Your task to perform on an android device: Toggle the flashlight Image 0: 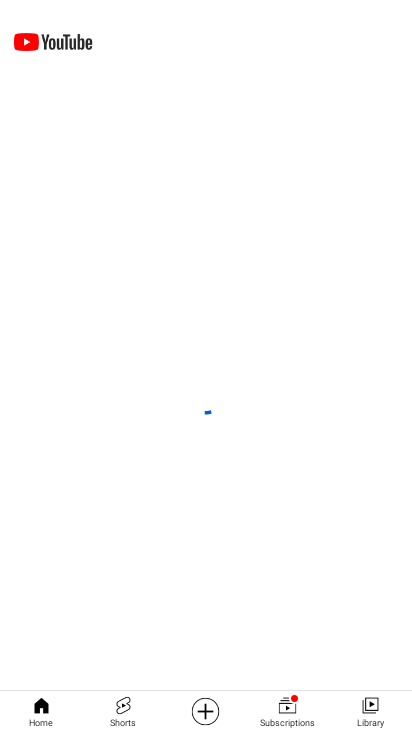
Step 0: drag from (252, 596) to (285, 194)
Your task to perform on an android device: Toggle the flashlight Image 1: 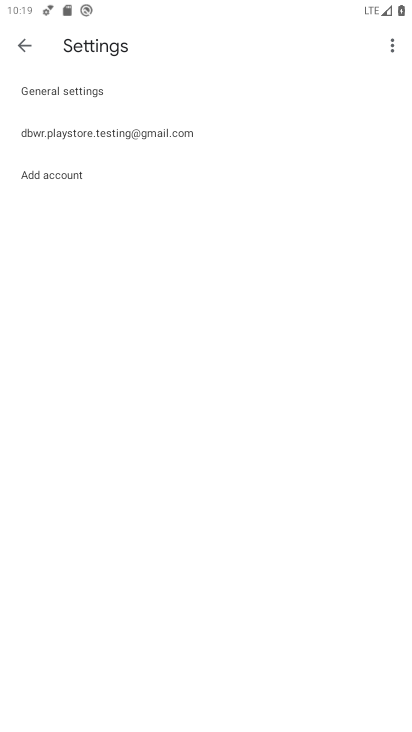
Step 1: task complete